Your task to perform on an android device: toggle wifi Image 0: 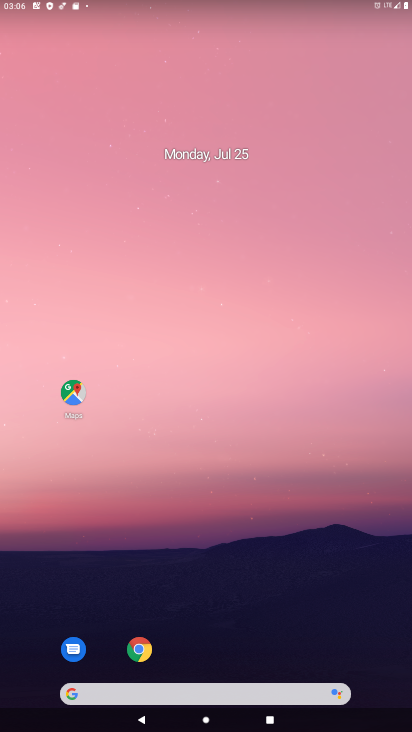
Step 0: drag from (380, 705) to (325, 305)
Your task to perform on an android device: toggle wifi Image 1: 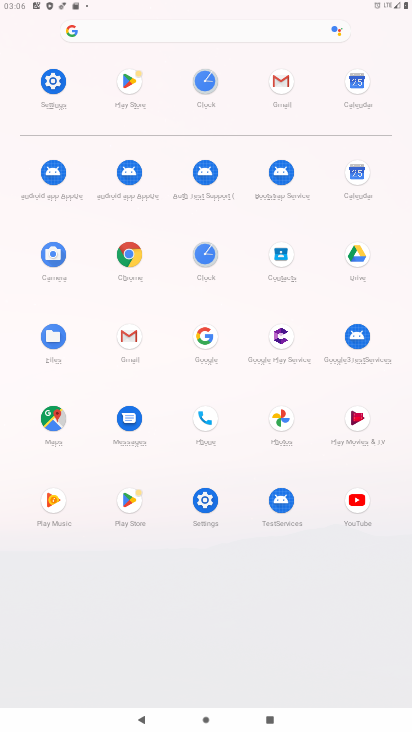
Step 1: click (205, 502)
Your task to perform on an android device: toggle wifi Image 2: 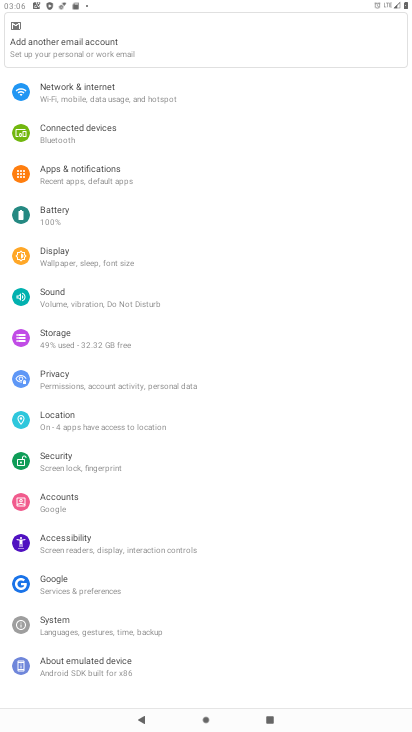
Step 2: click (75, 86)
Your task to perform on an android device: toggle wifi Image 3: 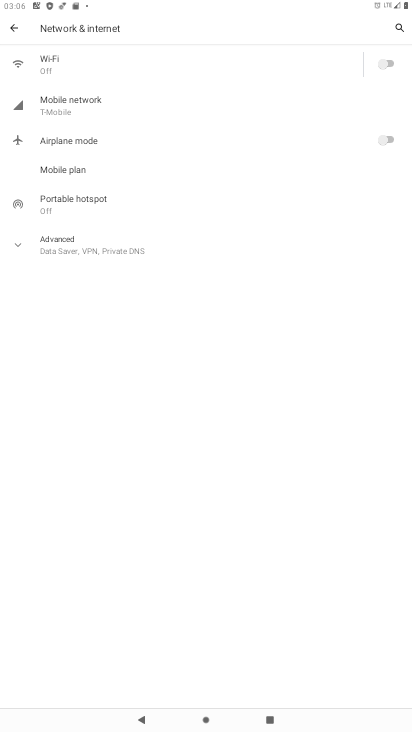
Step 3: click (392, 62)
Your task to perform on an android device: toggle wifi Image 4: 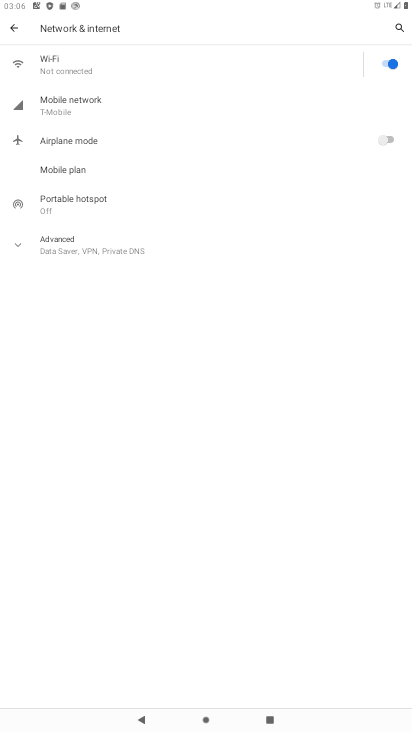
Step 4: task complete